Your task to perform on an android device: open app "The Home Depot" (install if not already installed) Image 0: 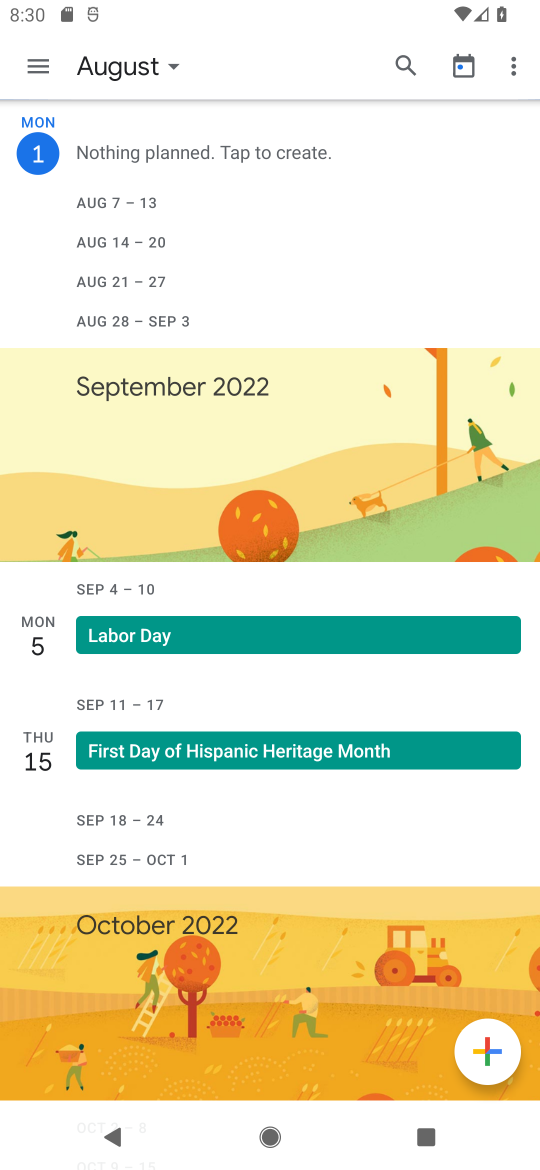
Step 0: press home button
Your task to perform on an android device: open app "The Home Depot" (install if not already installed) Image 1: 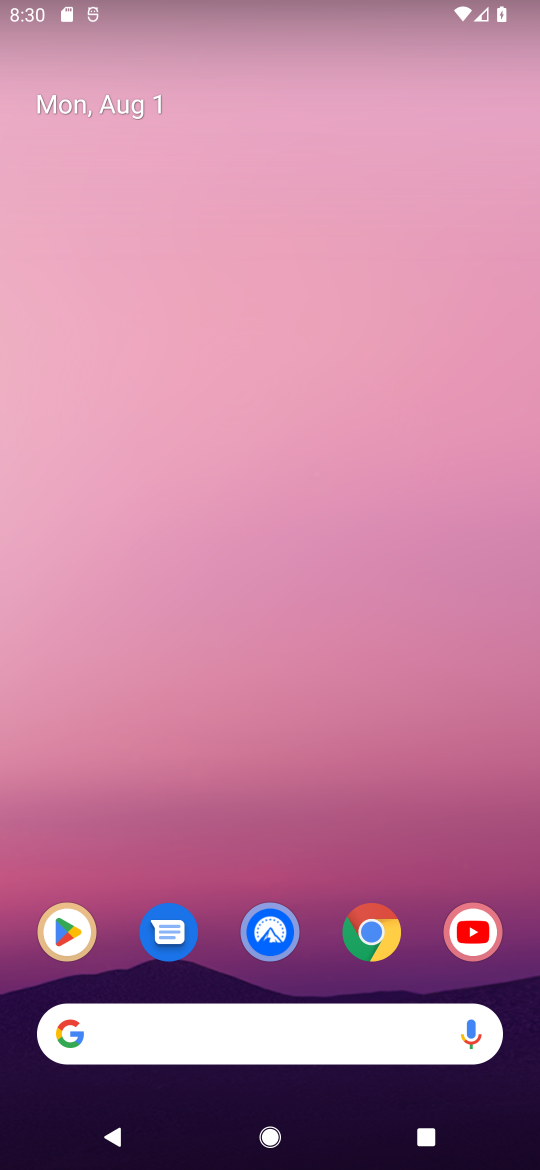
Step 1: click (64, 941)
Your task to perform on an android device: open app "The Home Depot" (install if not already installed) Image 2: 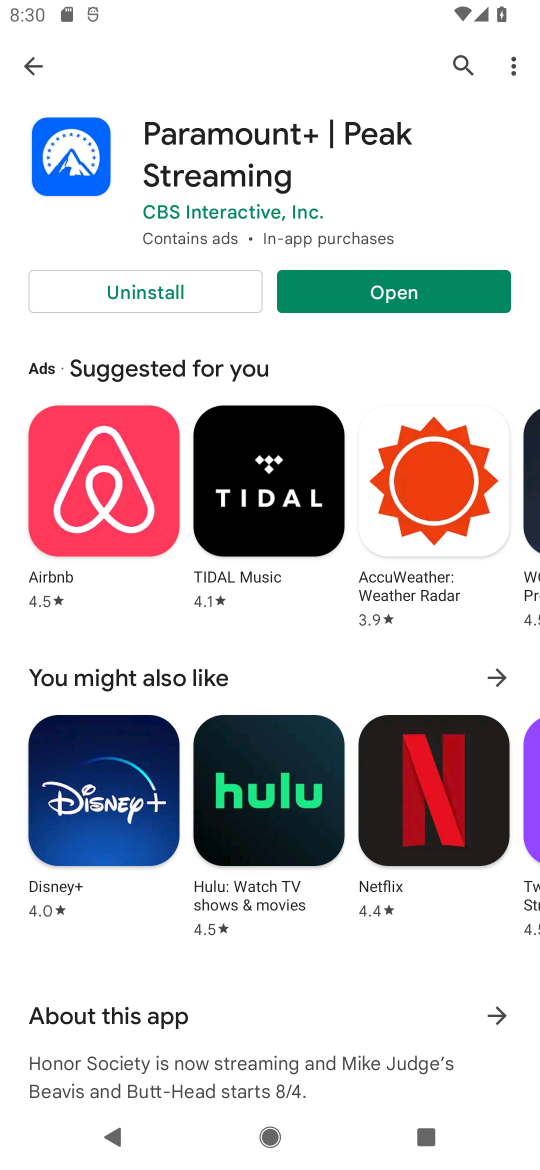
Step 2: click (468, 69)
Your task to perform on an android device: open app "The Home Depot" (install if not already installed) Image 3: 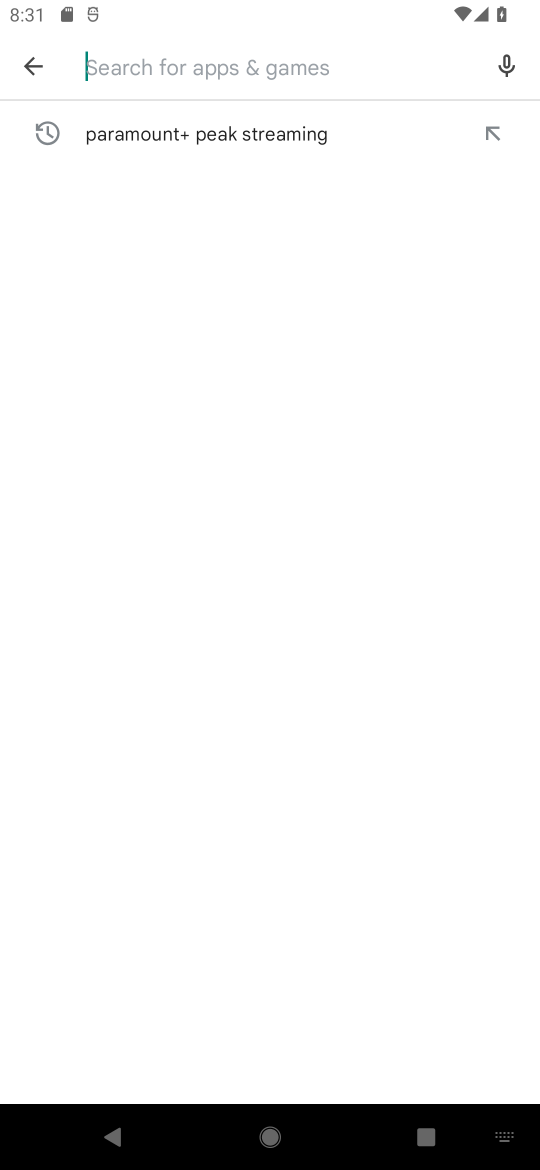
Step 3: type "the home depot"
Your task to perform on an android device: open app "The Home Depot" (install if not already installed) Image 4: 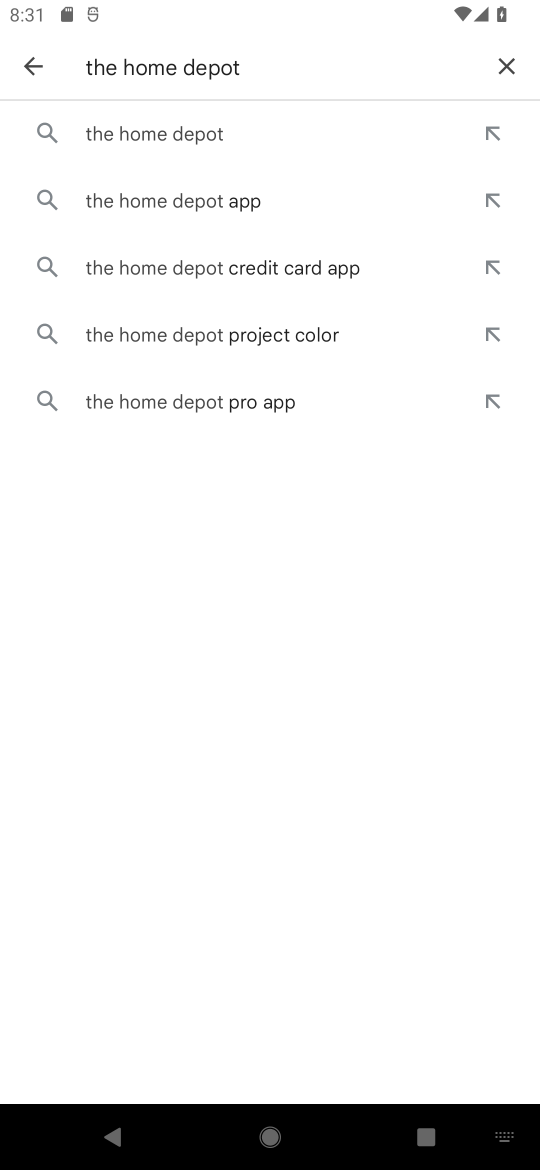
Step 4: click (316, 125)
Your task to perform on an android device: open app "The Home Depot" (install if not already installed) Image 5: 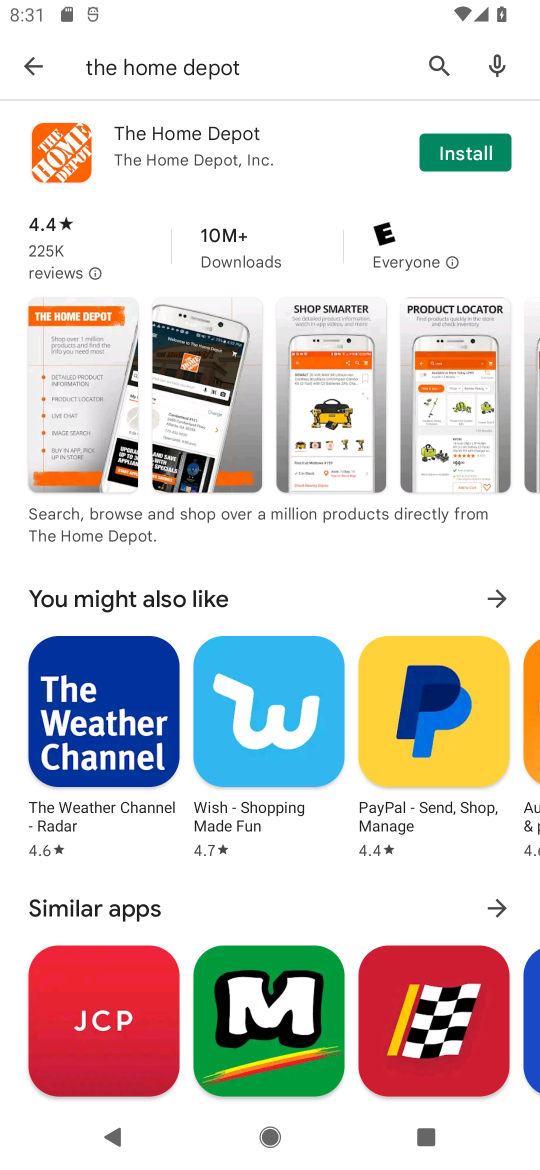
Step 5: click (203, 143)
Your task to perform on an android device: open app "The Home Depot" (install if not already installed) Image 6: 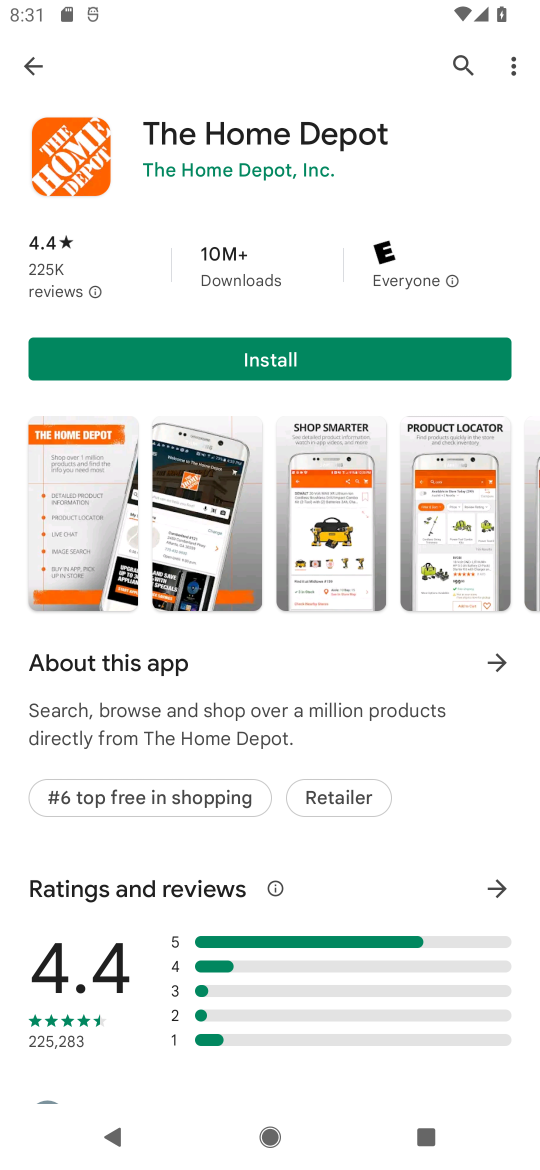
Step 6: click (310, 366)
Your task to perform on an android device: open app "The Home Depot" (install if not already installed) Image 7: 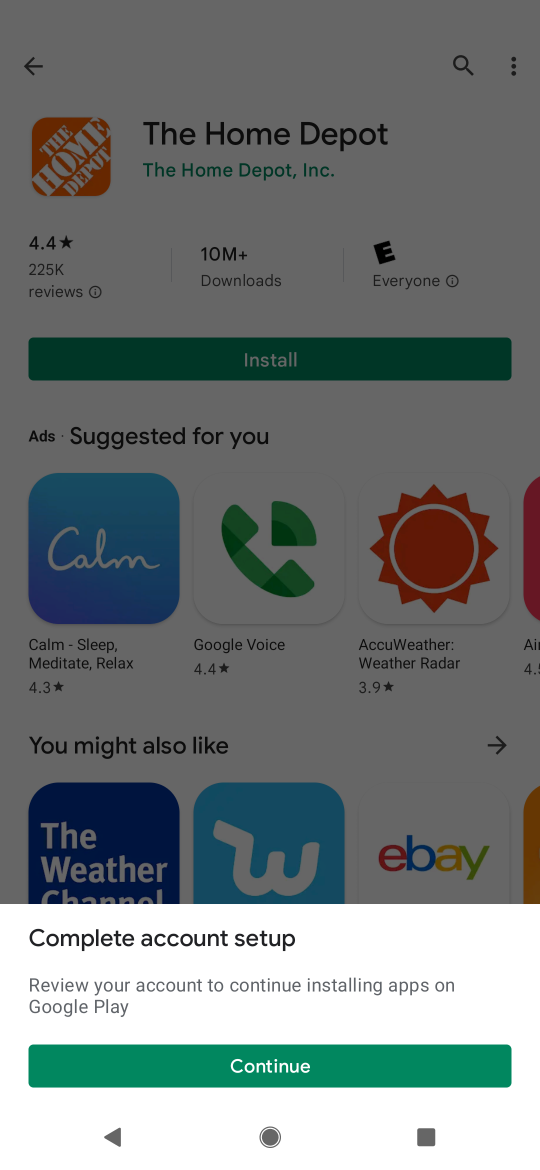
Step 7: click (182, 1058)
Your task to perform on an android device: open app "The Home Depot" (install if not already installed) Image 8: 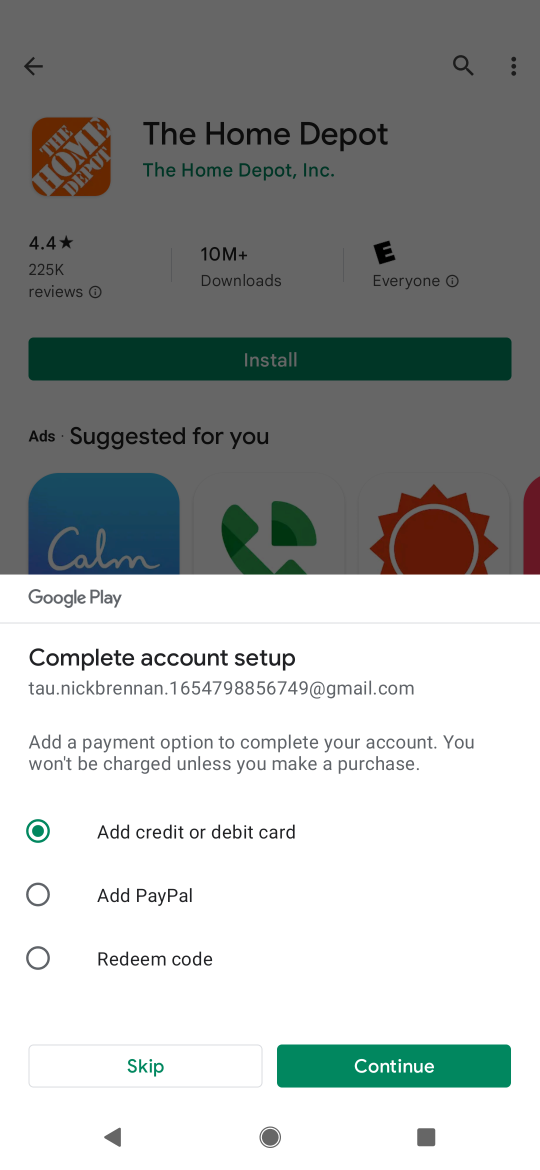
Step 8: click (117, 1060)
Your task to perform on an android device: open app "The Home Depot" (install if not already installed) Image 9: 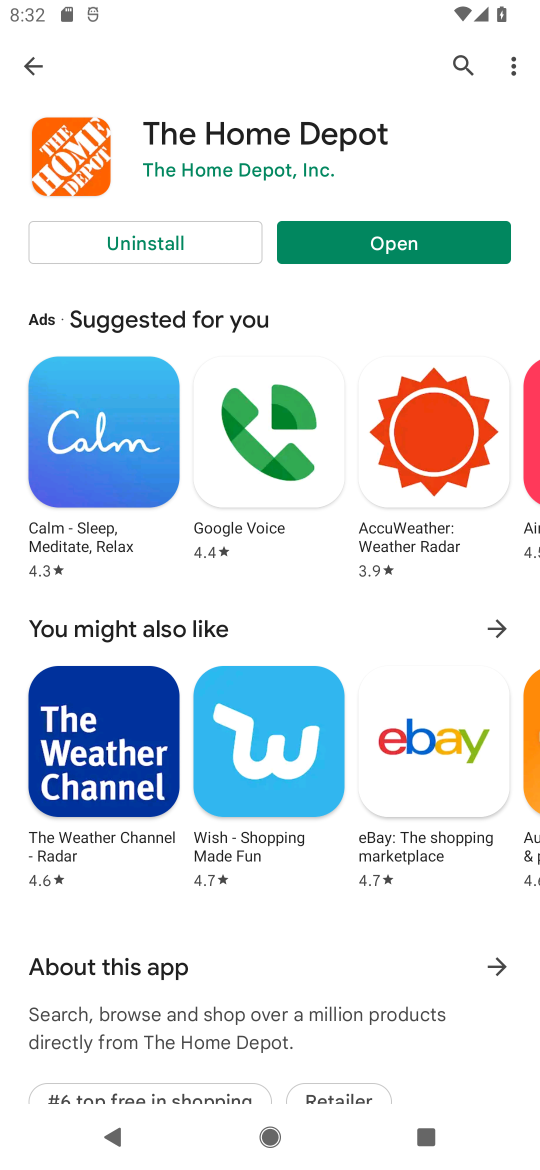
Step 9: click (398, 248)
Your task to perform on an android device: open app "The Home Depot" (install if not already installed) Image 10: 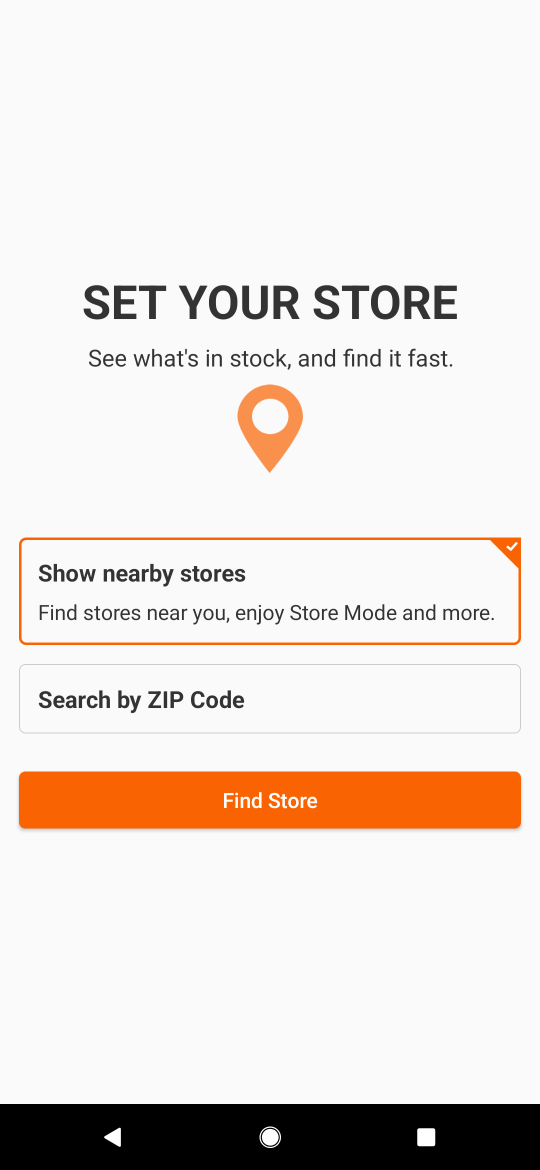
Step 10: task complete